Your task to perform on an android device: Is it going to rain this weekend? Image 0: 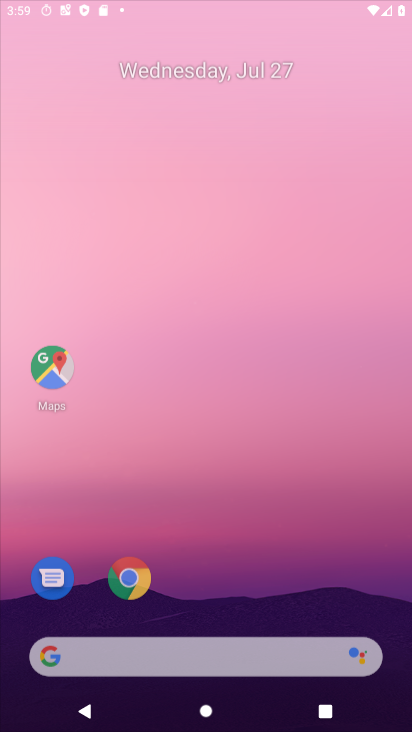
Step 0: press home button
Your task to perform on an android device: Is it going to rain this weekend? Image 1: 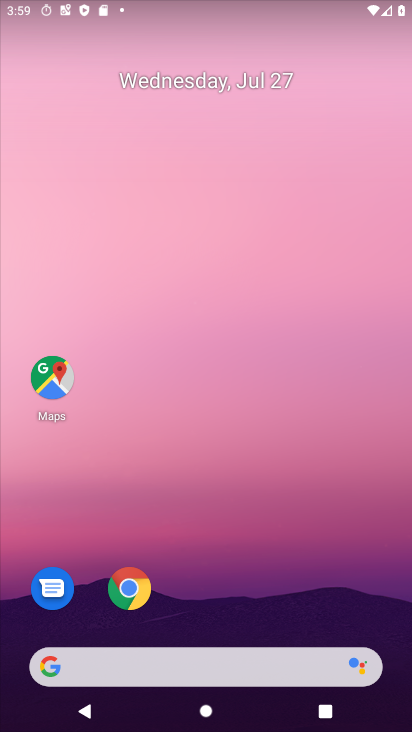
Step 1: click (51, 679)
Your task to perform on an android device: Is it going to rain this weekend? Image 2: 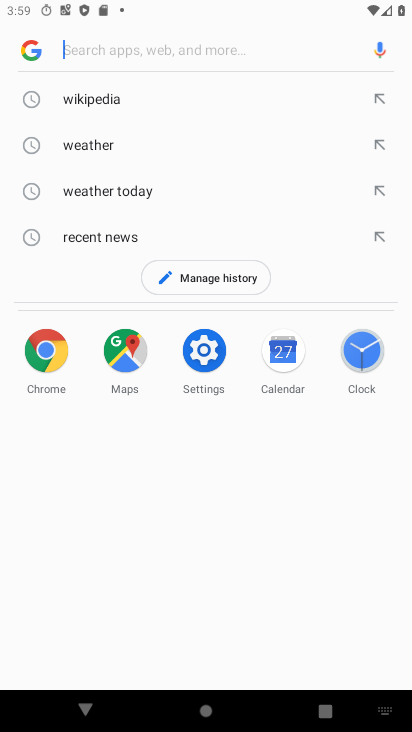
Step 2: press enter
Your task to perform on an android device: Is it going to rain this weekend? Image 3: 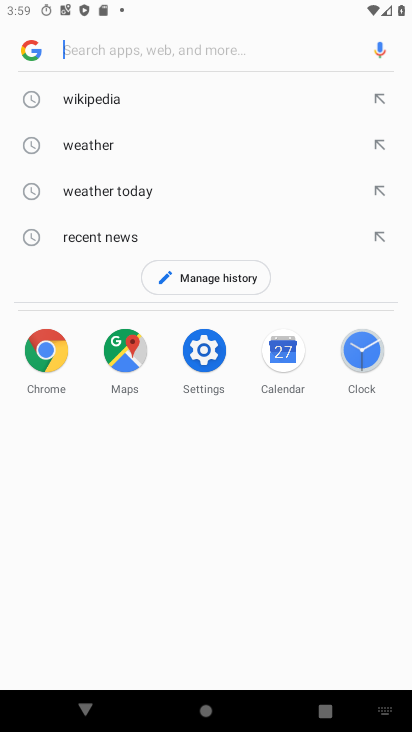
Step 3: type "rain this weekend?"
Your task to perform on an android device: Is it going to rain this weekend? Image 4: 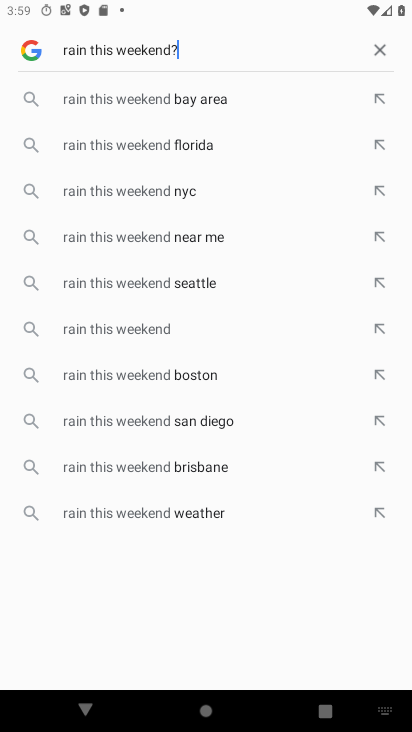
Step 4: press enter
Your task to perform on an android device: Is it going to rain this weekend? Image 5: 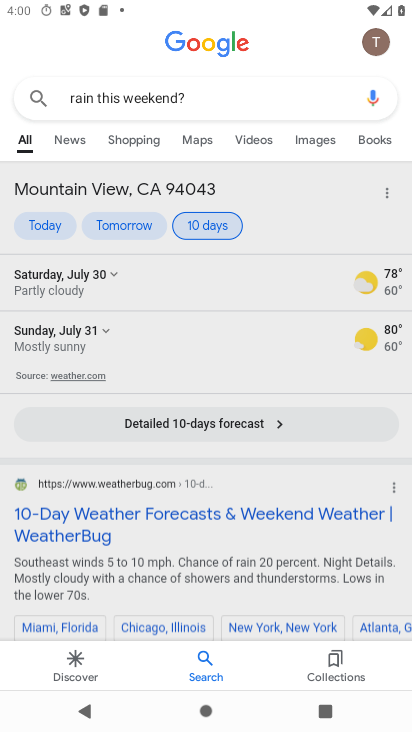
Step 5: task complete